Your task to perform on an android device: set the timer Image 0: 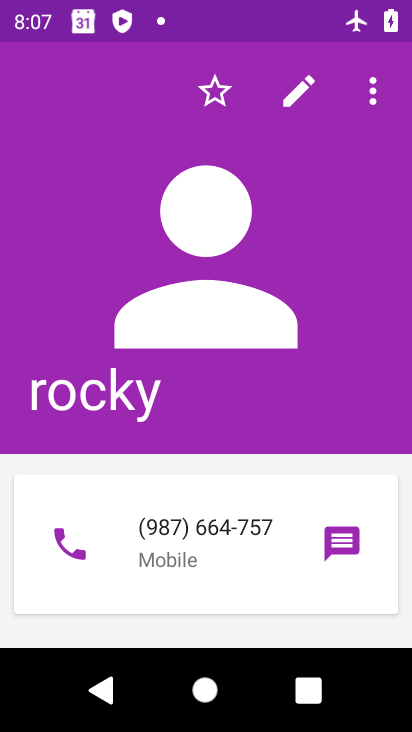
Step 0: press home button
Your task to perform on an android device: set the timer Image 1: 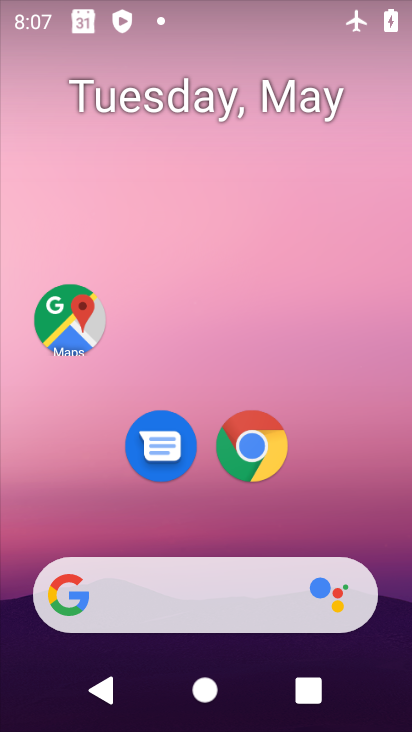
Step 1: drag from (364, 545) to (326, 15)
Your task to perform on an android device: set the timer Image 2: 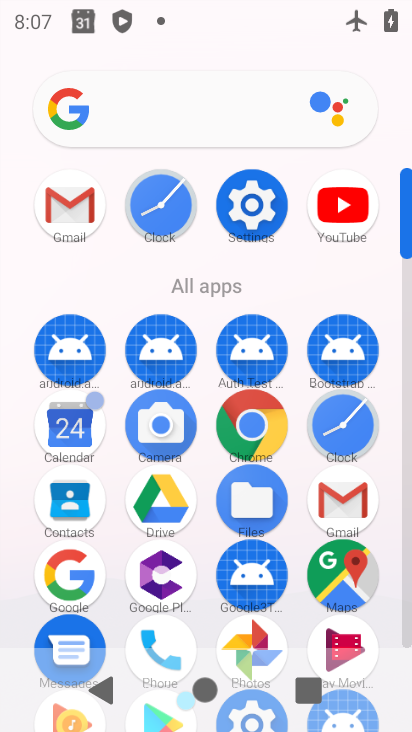
Step 2: click (340, 417)
Your task to perform on an android device: set the timer Image 3: 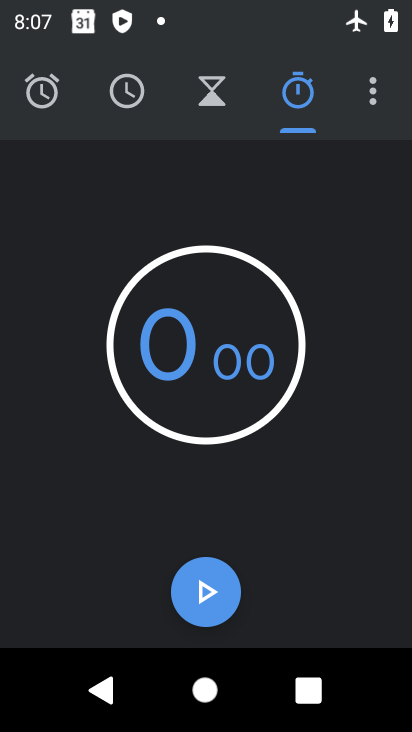
Step 3: click (217, 100)
Your task to perform on an android device: set the timer Image 4: 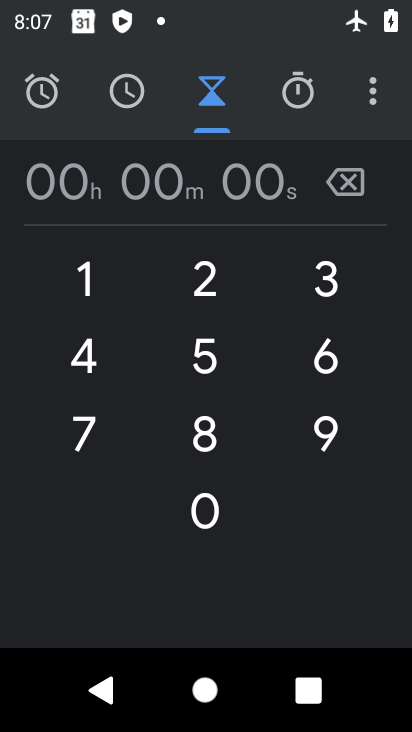
Step 4: click (204, 422)
Your task to perform on an android device: set the timer Image 5: 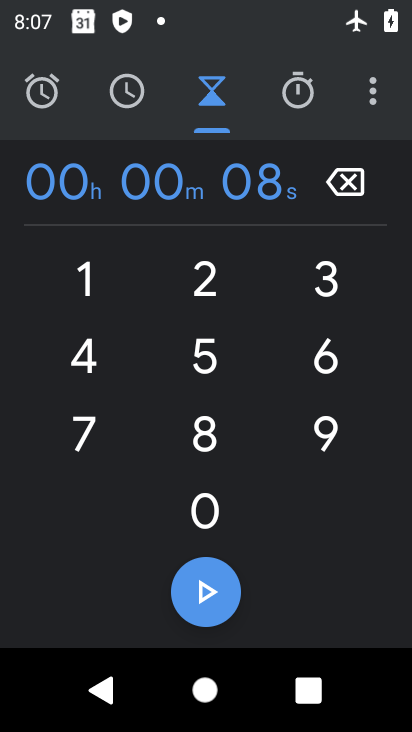
Step 5: click (203, 503)
Your task to perform on an android device: set the timer Image 6: 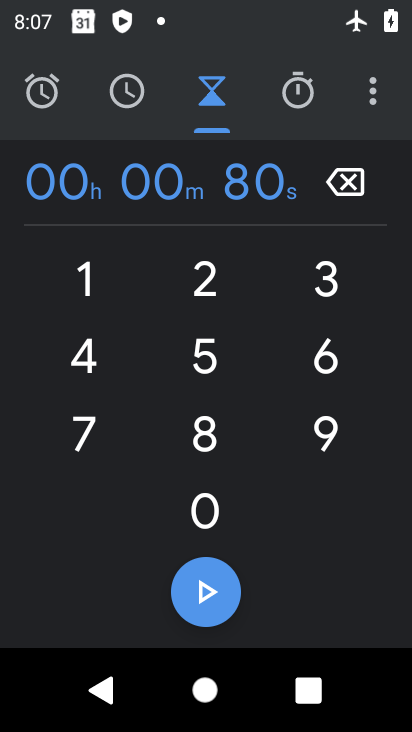
Step 6: click (208, 591)
Your task to perform on an android device: set the timer Image 7: 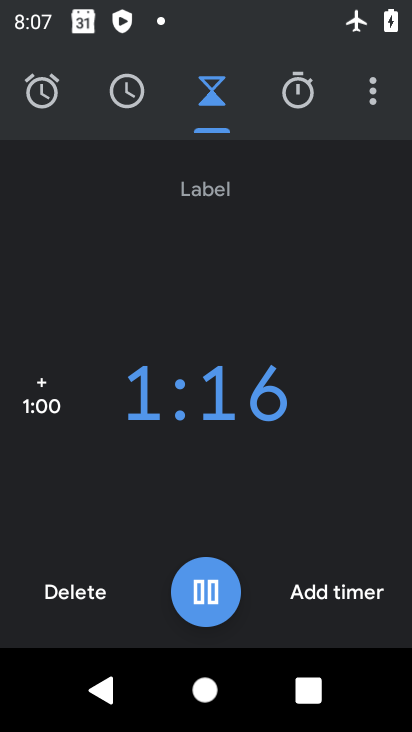
Step 7: task complete